Your task to perform on an android device: What's the weather? Image 0: 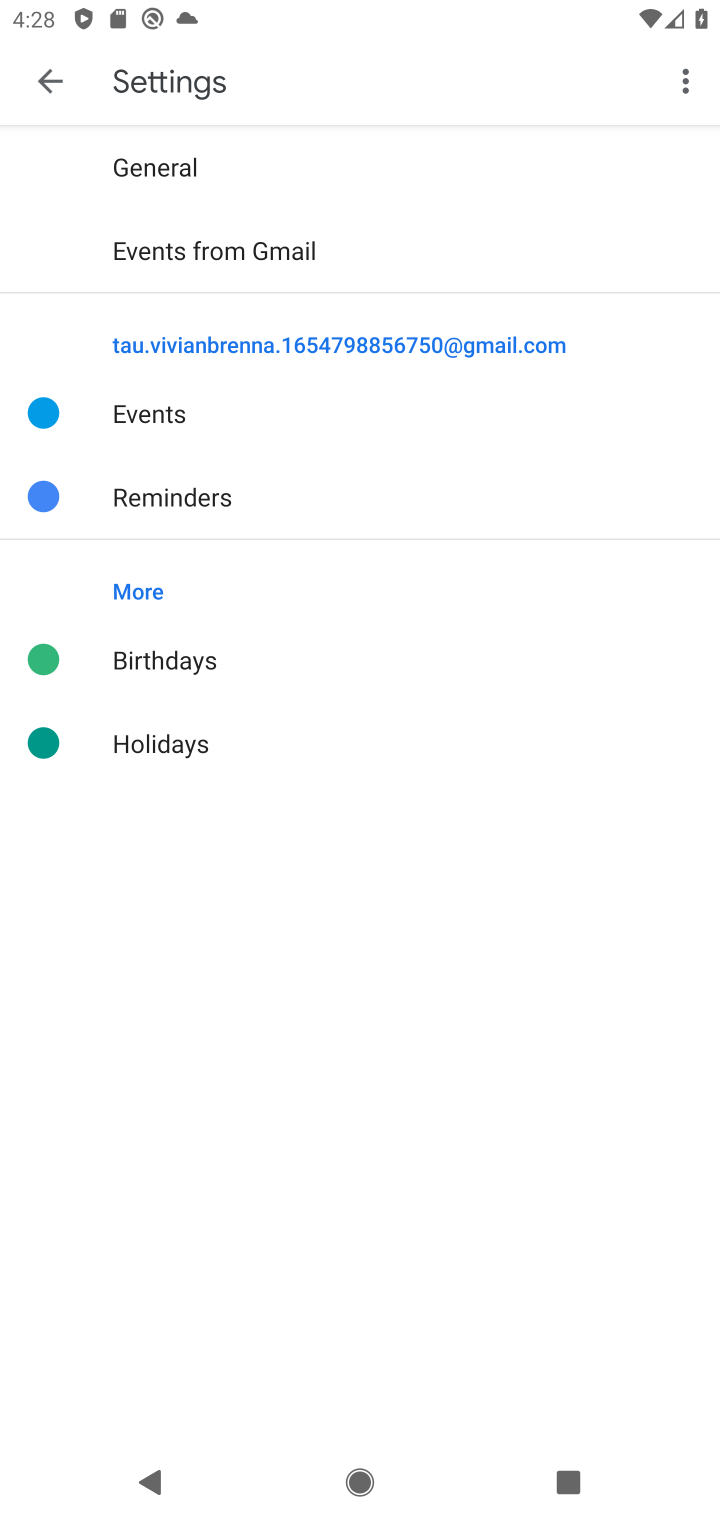
Step 0: press back button
Your task to perform on an android device: What's the weather? Image 1: 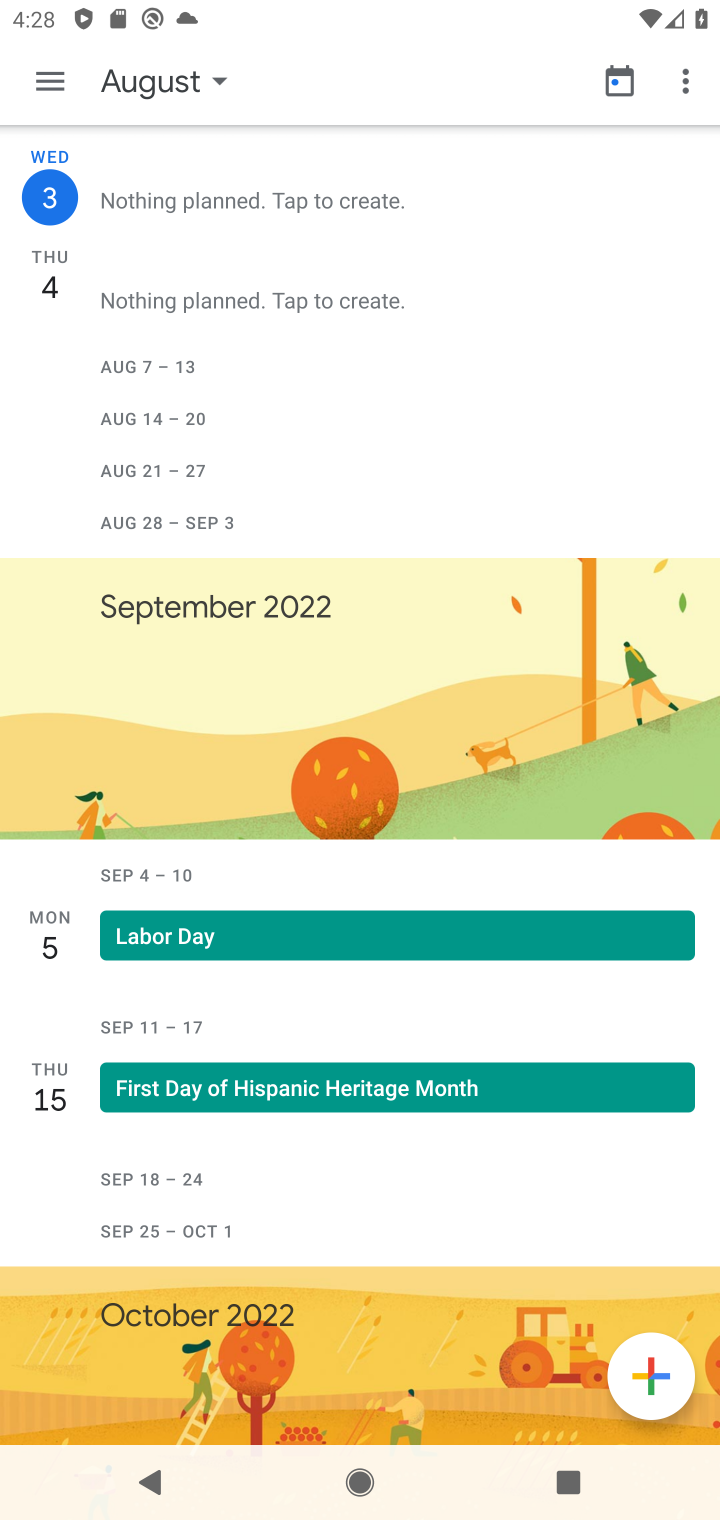
Step 1: press back button
Your task to perform on an android device: What's the weather? Image 2: 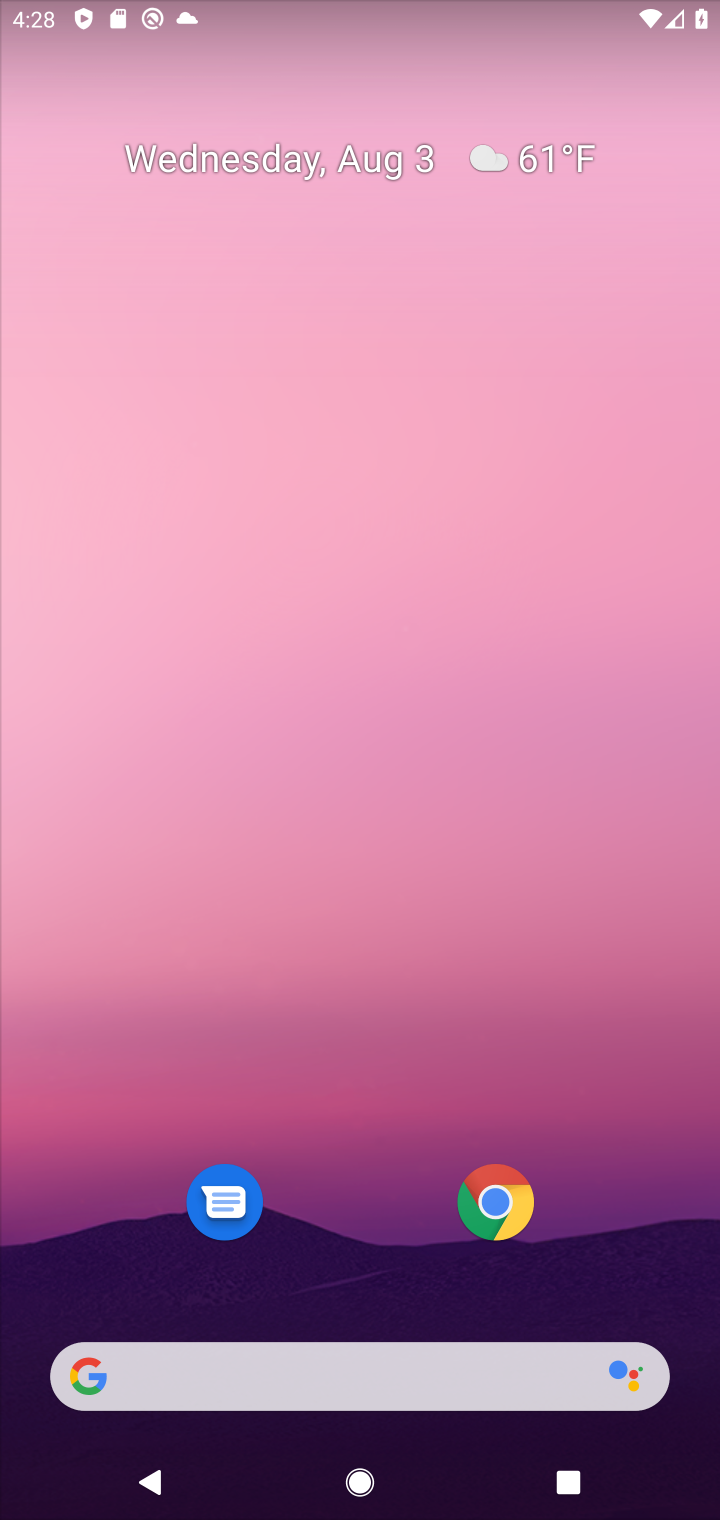
Step 2: click (481, 153)
Your task to perform on an android device: What's the weather? Image 3: 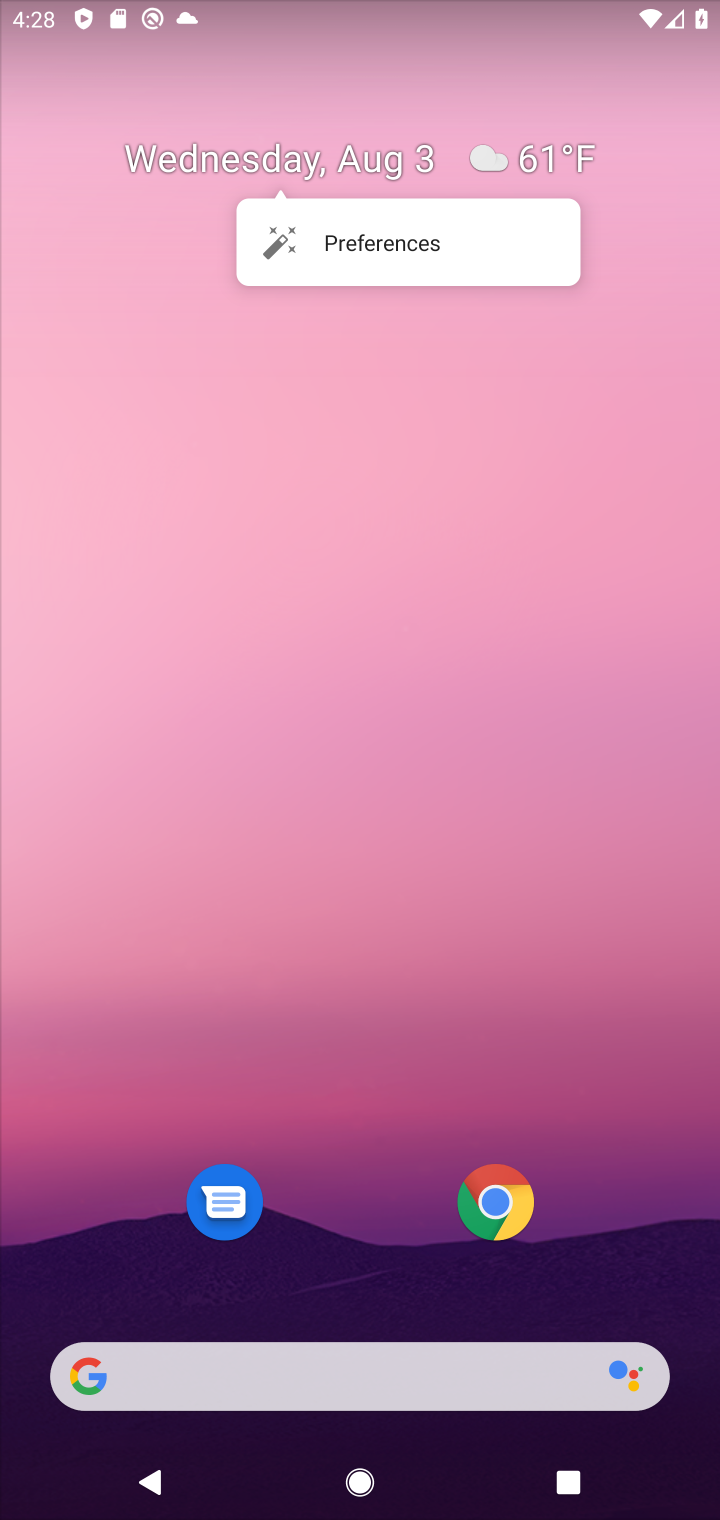
Step 3: click (497, 157)
Your task to perform on an android device: What's the weather? Image 4: 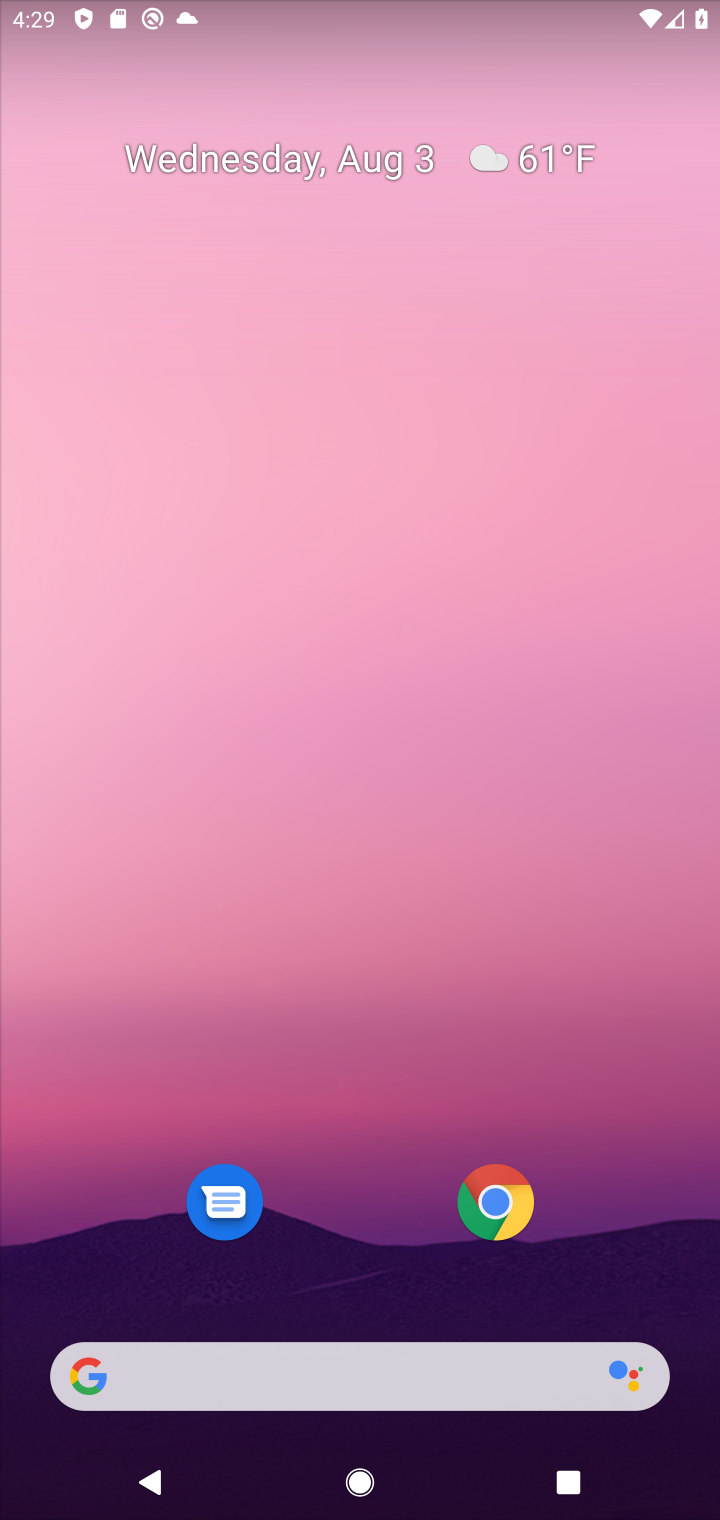
Step 4: click (495, 161)
Your task to perform on an android device: What's the weather? Image 5: 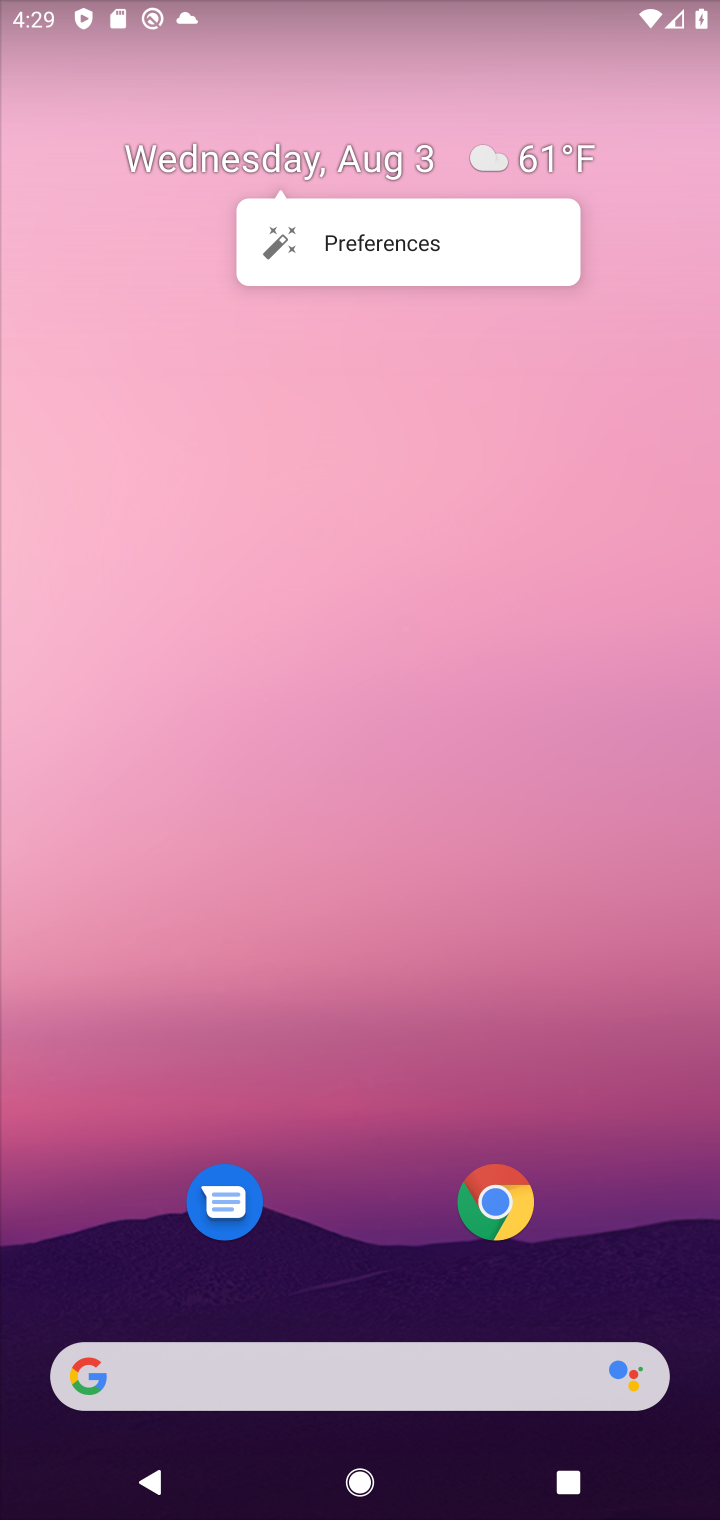
Step 5: click (308, 1332)
Your task to perform on an android device: What's the weather? Image 6: 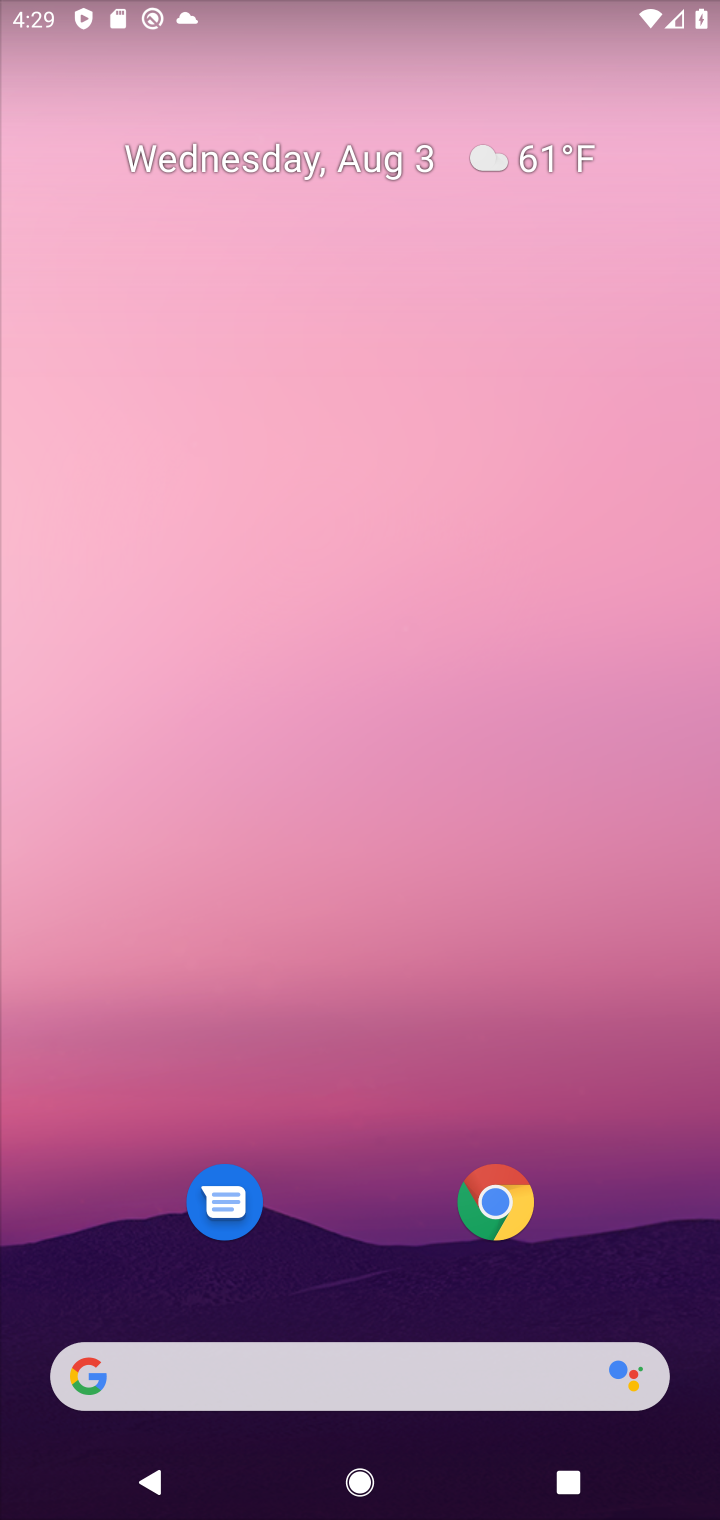
Step 6: click (312, 1381)
Your task to perform on an android device: What's the weather? Image 7: 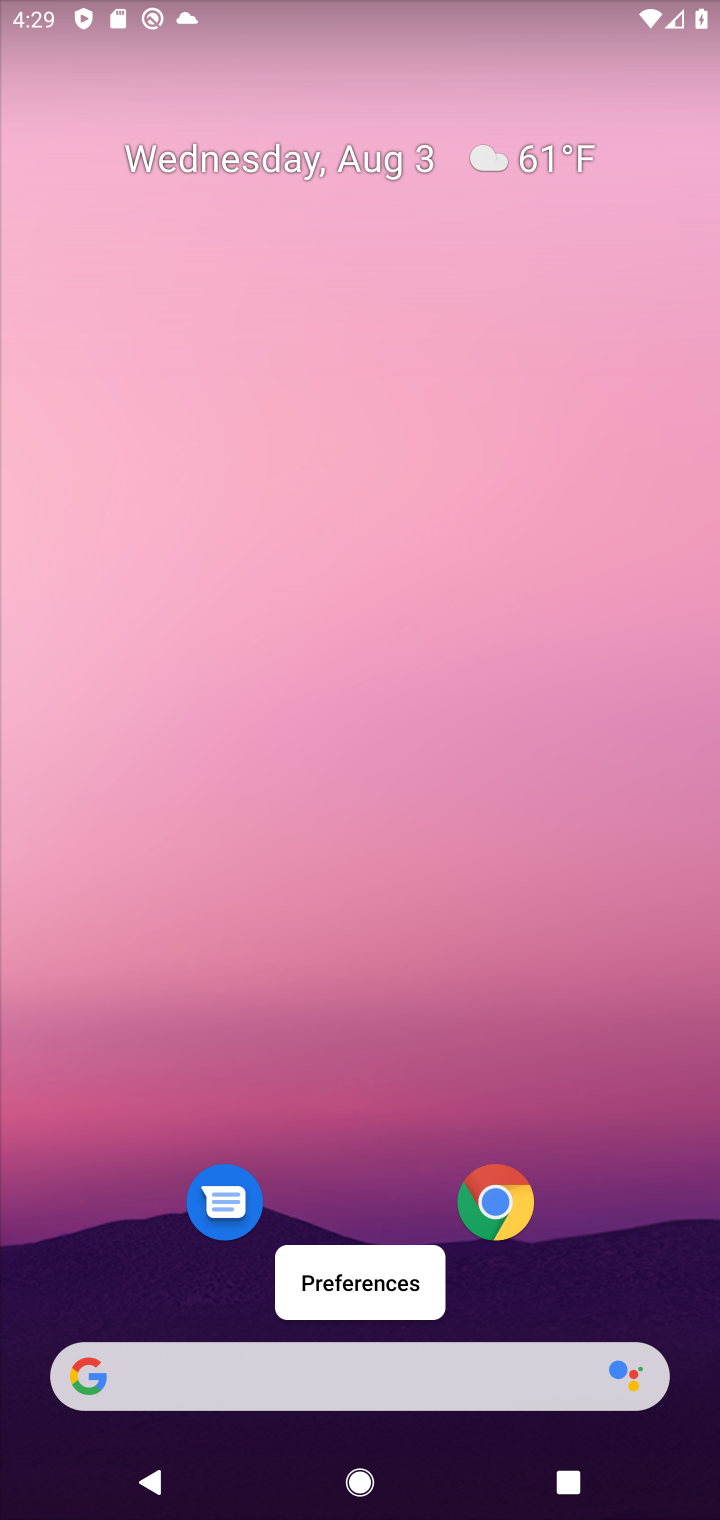
Step 7: click (317, 1387)
Your task to perform on an android device: What's the weather? Image 8: 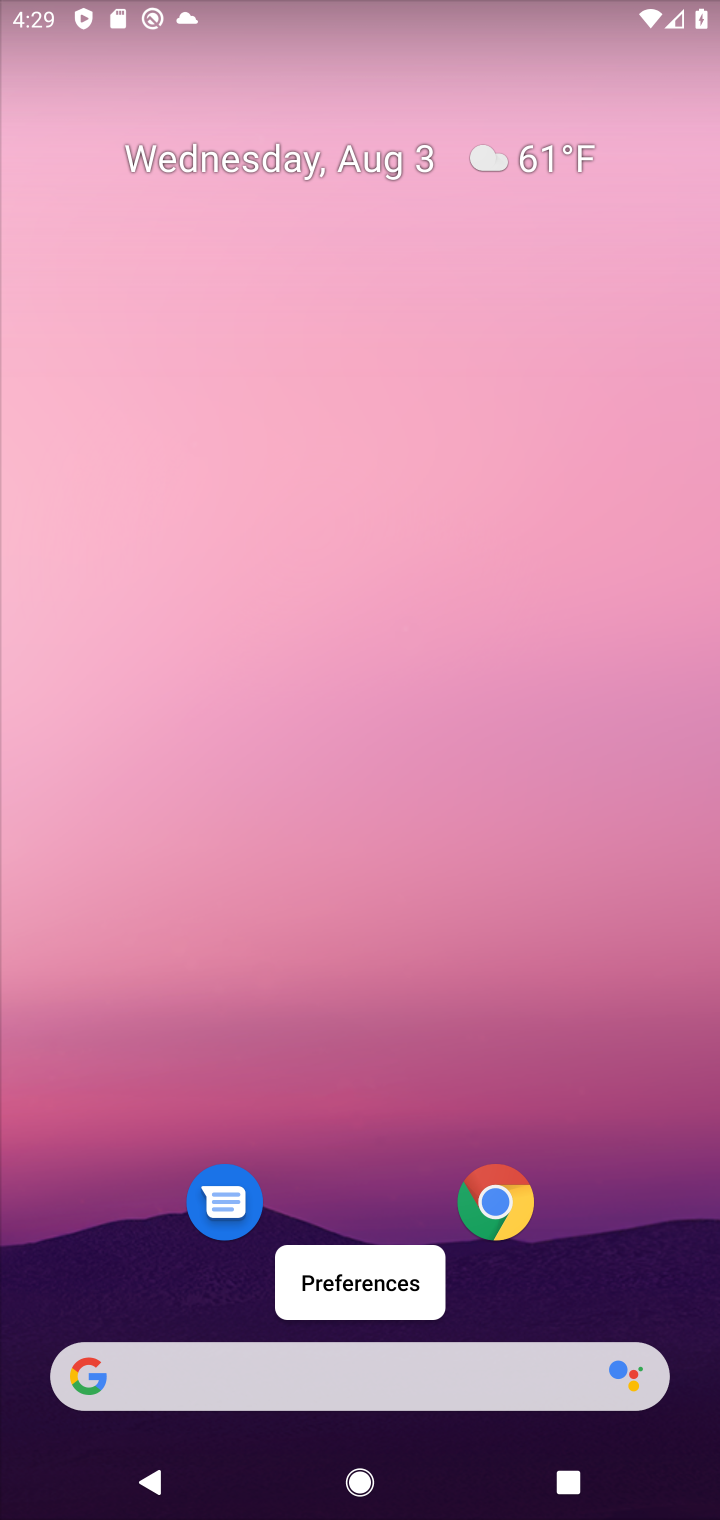
Step 8: click (223, 1371)
Your task to perform on an android device: What's the weather? Image 9: 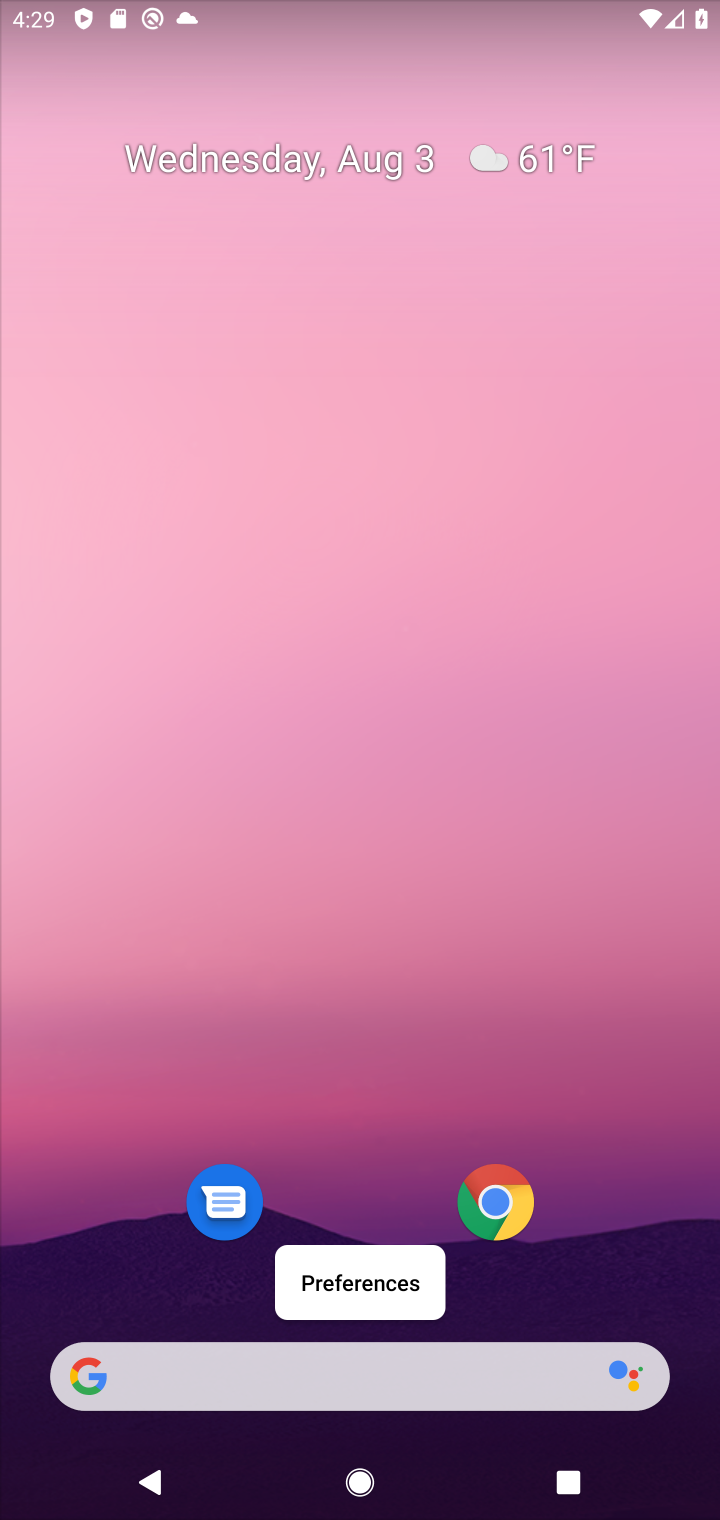
Step 9: click (241, 1370)
Your task to perform on an android device: What's the weather? Image 10: 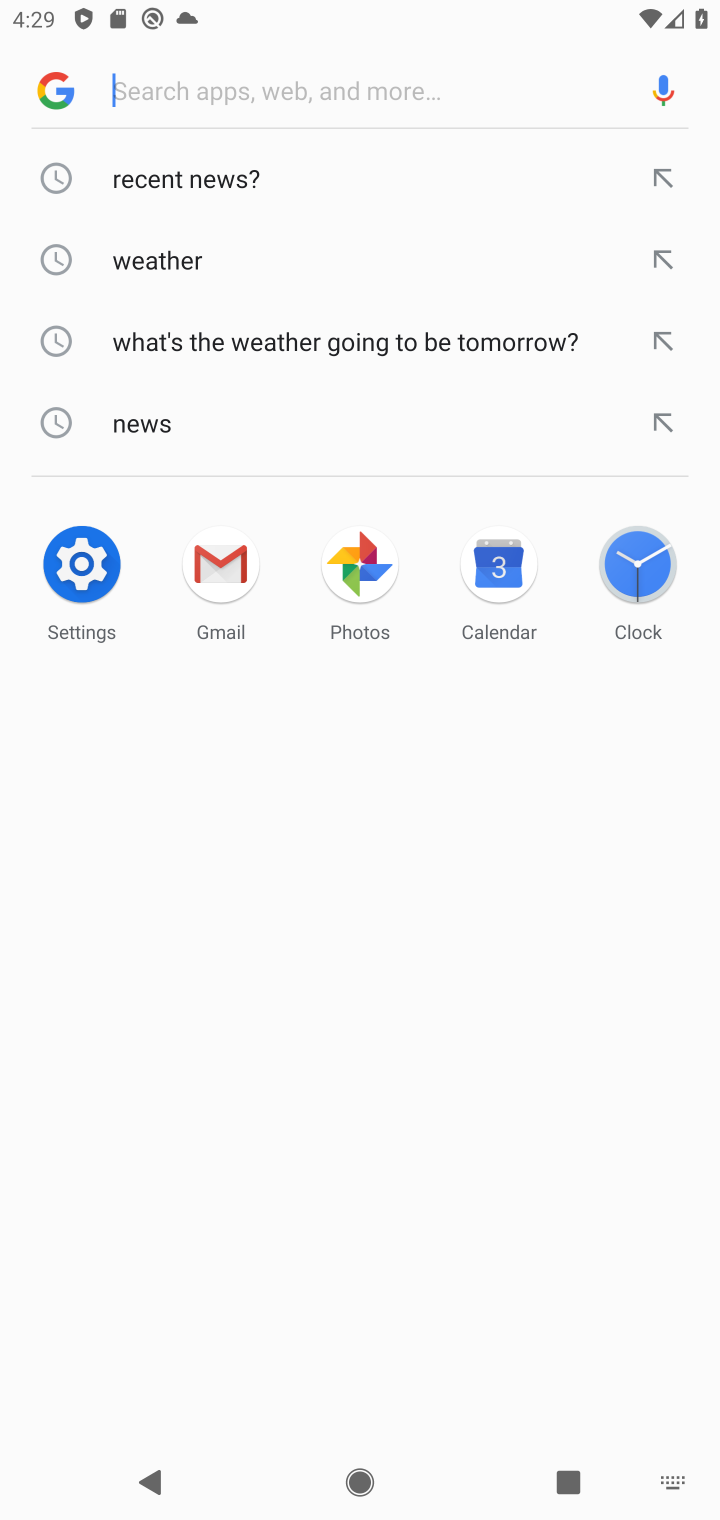
Step 10: click (376, 84)
Your task to perform on an android device: What's the weather? Image 11: 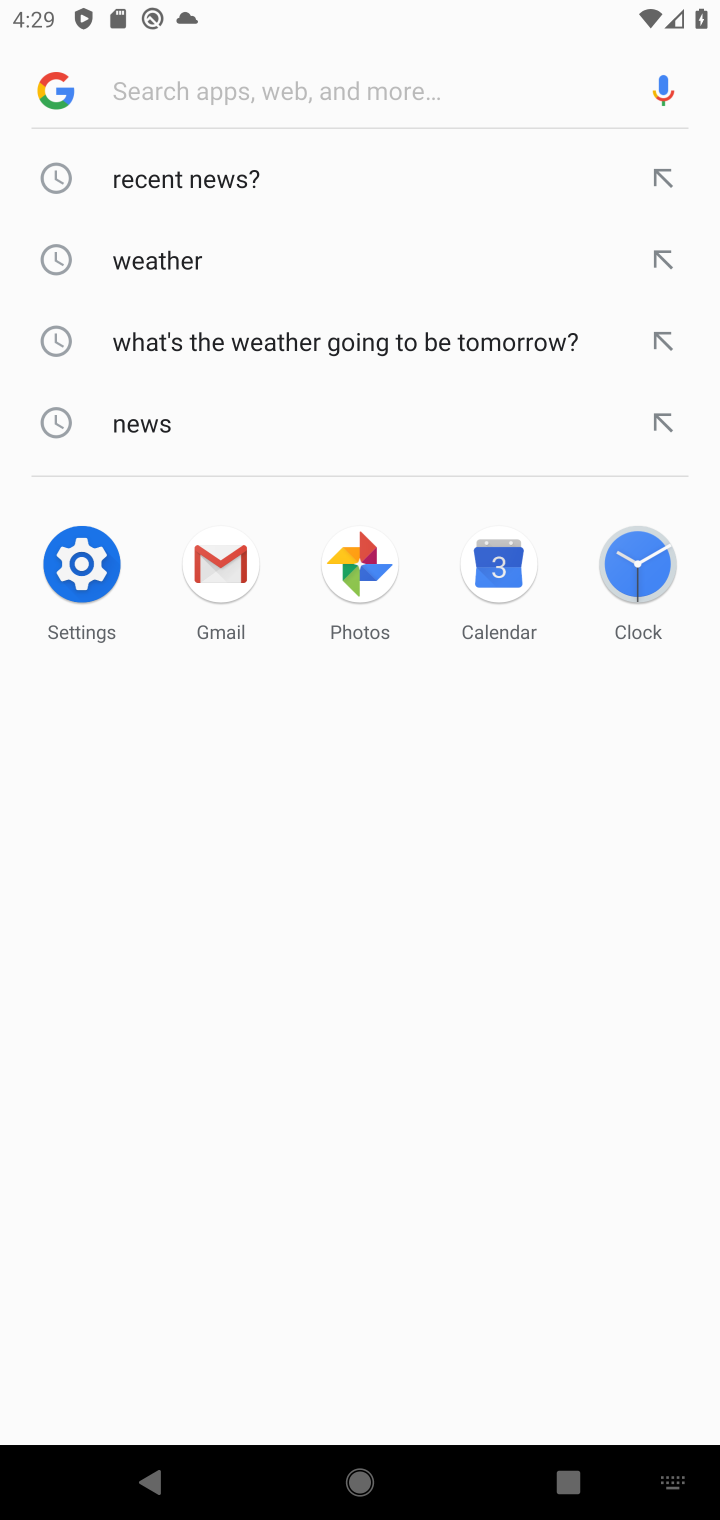
Step 11: click (153, 277)
Your task to perform on an android device: What's the weather? Image 12: 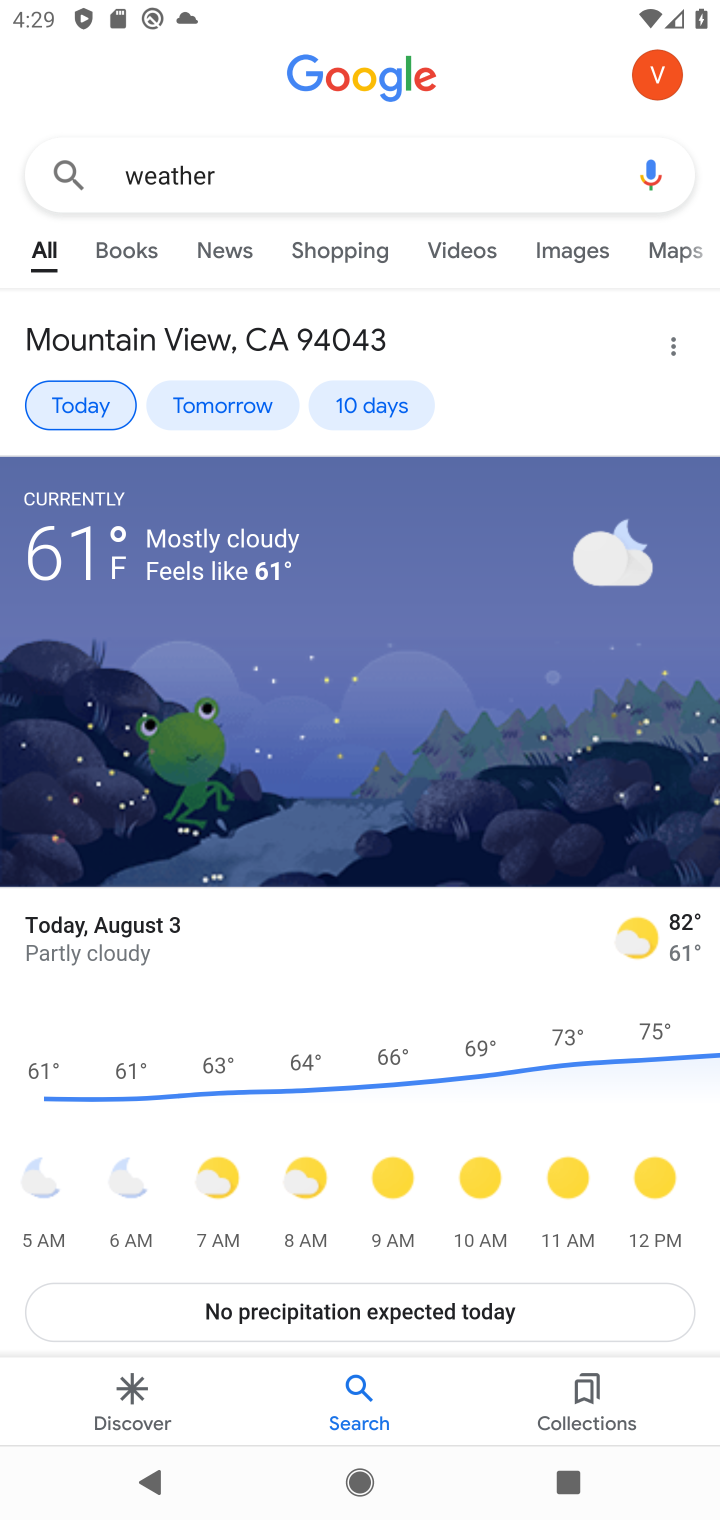
Step 12: task complete